Your task to perform on an android device: toggle wifi Image 0: 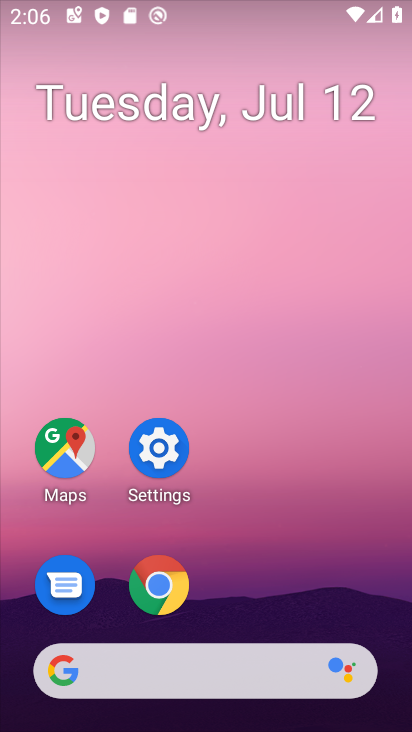
Step 0: drag from (396, 702) to (385, 226)
Your task to perform on an android device: toggle wifi Image 1: 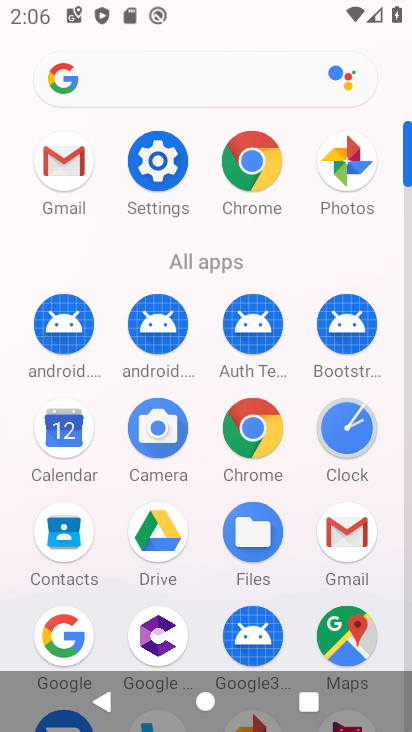
Step 1: click (166, 173)
Your task to perform on an android device: toggle wifi Image 2: 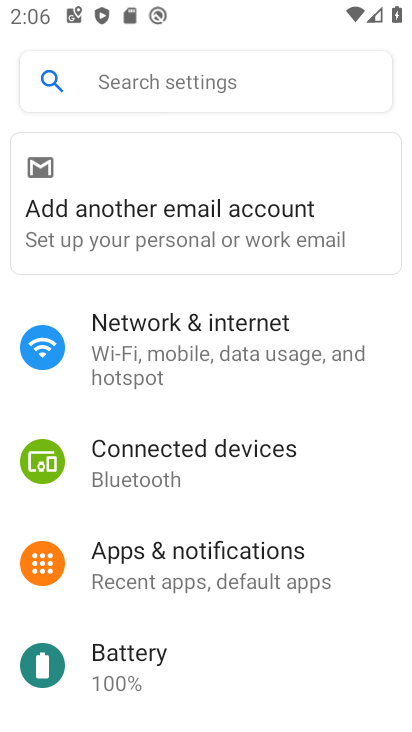
Step 2: click (162, 366)
Your task to perform on an android device: toggle wifi Image 3: 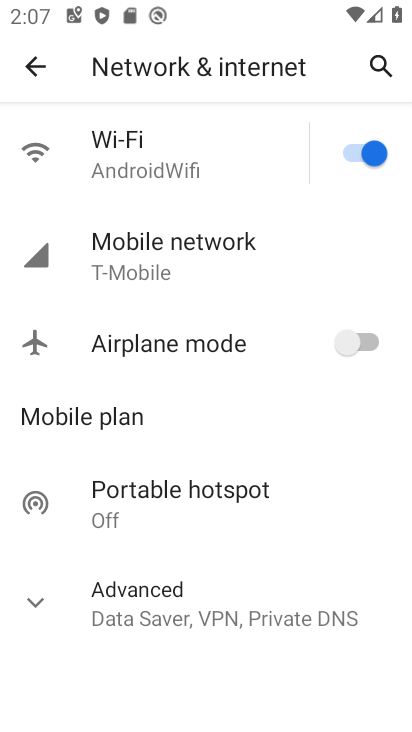
Step 3: click (339, 152)
Your task to perform on an android device: toggle wifi Image 4: 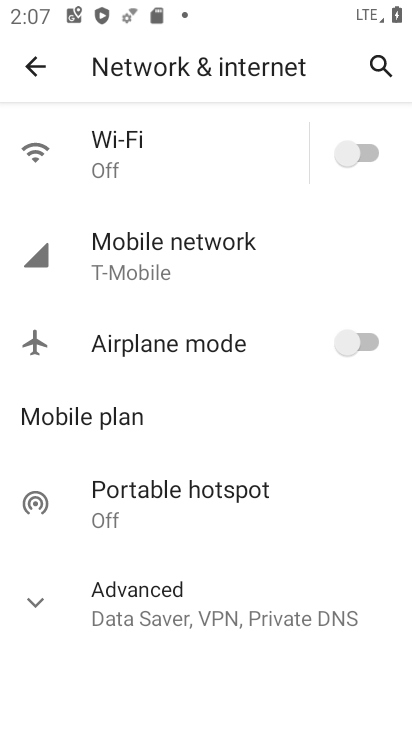
Step 4: task complete